Your task to perform on an android device: Open my contact list Image 0: 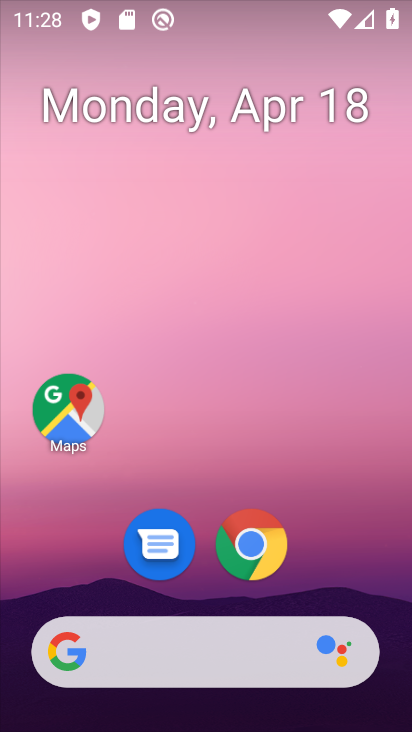
Step 0: drag from (379, 550) to (384, 16)
Your task to perform on an android device: Open my contact list Image 1: 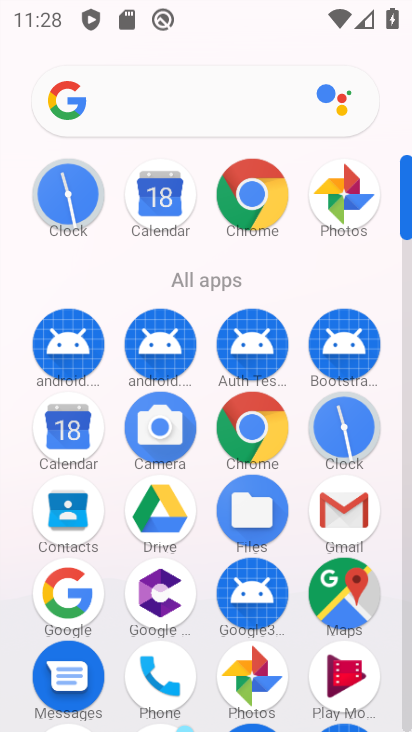
Step 1: click (69, 510)
Your task to perform on an android device: Open my contact list Image 2: 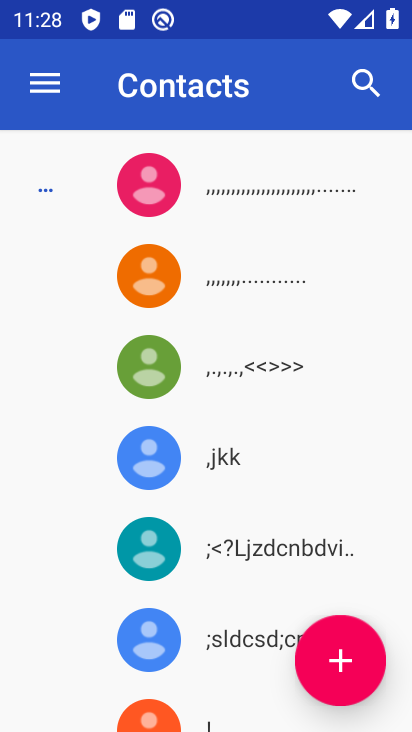
Step 2: task complete